Your task to perform on an android device: turn on data saver in the chrome app Image 0: 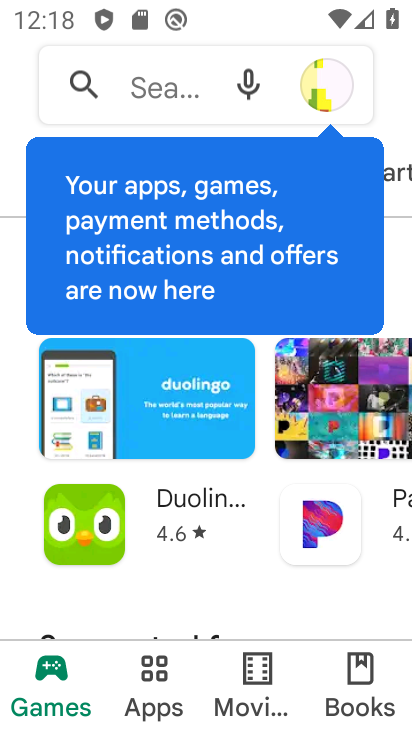
Step 0: press home button
Your task to perform on an android device: turn on data saver in the chrome app Image 1: 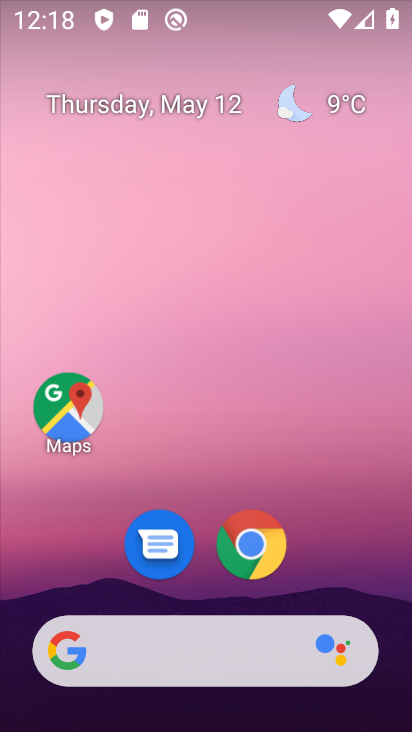
Step 1: click (251, 534)
Your task to perform on an android device: turn on data saver in the chrome app Image 2: 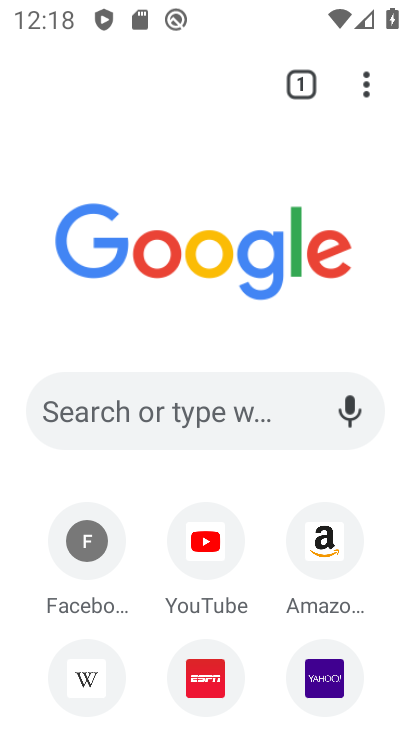
Step 2: click (366, 92)
Your task to perform on an android device: turn on data saver in the chrome app Image 3: 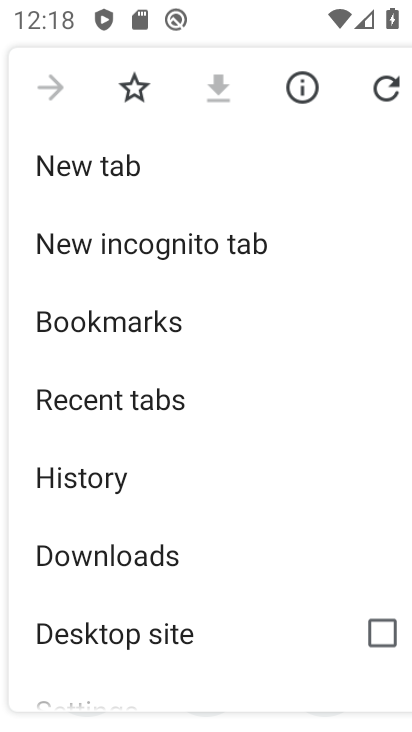
Step 3: drag from (174, 633) to (172, 227)
Your task to perform on an android device: turn on data saver in the chrome app Image 4: 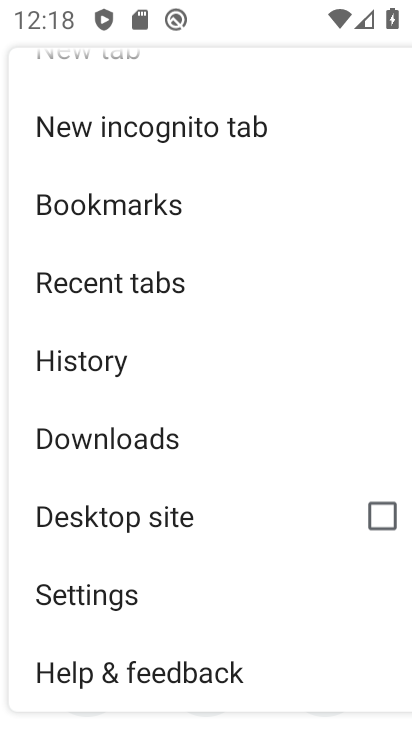
Step 4: click (92, 587)
Your task to perform on an android device: turn on data saver in the chrome app Image 5: 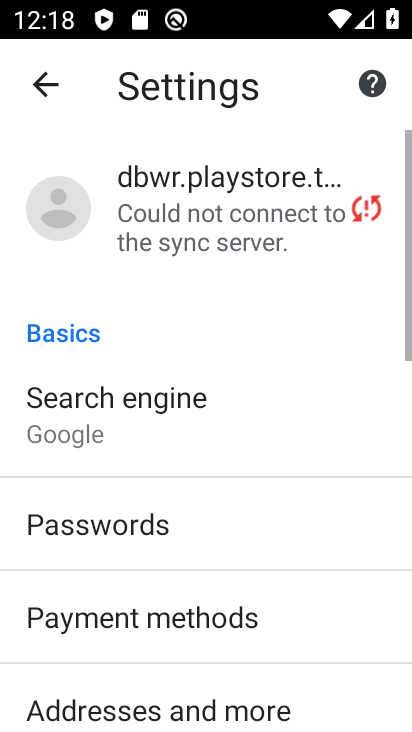
Step 5: drag from (159, 611) to (161, 281)
Your task to perform on an android device: turn on data saver in the chrome app Image 6: 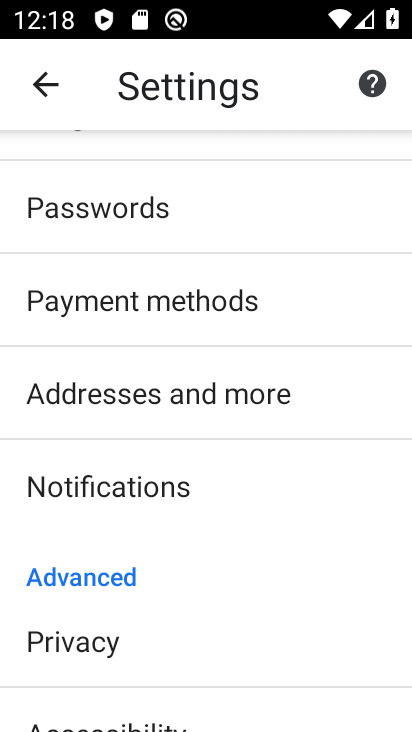
Step 6: drag from (116, 647) to (116, 235)
Your task to perform on an android device: turn on data saver in the chrome app Image 7: 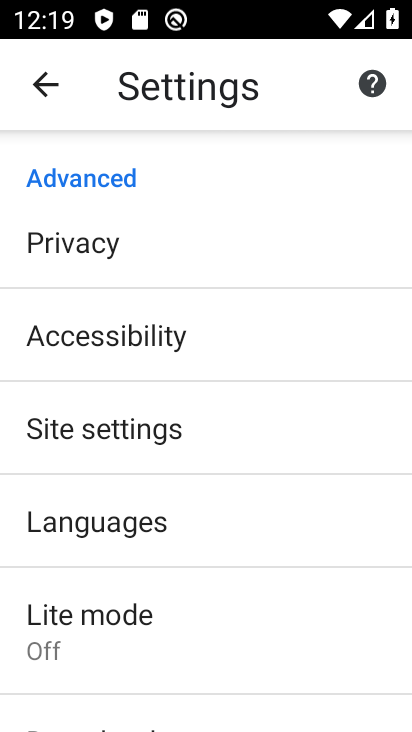
Step 7: click (101, 608)
Your task to perform on an android device: turn on data saver in the chrome app Image 8: 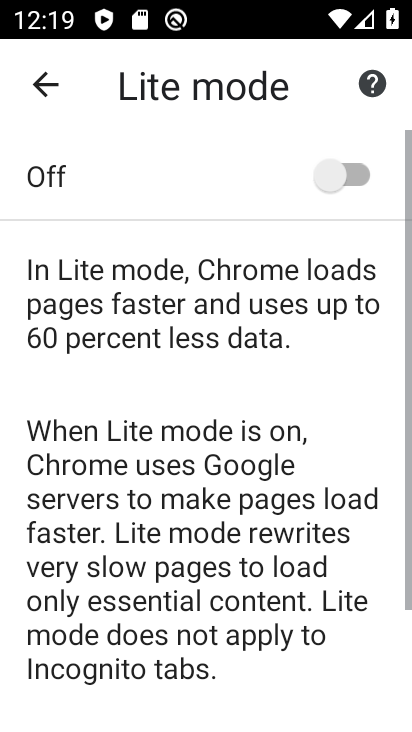
Step 8: click (359, 175)
Your task to perform on an android device: turn on data saver in the chrome app Image 9: 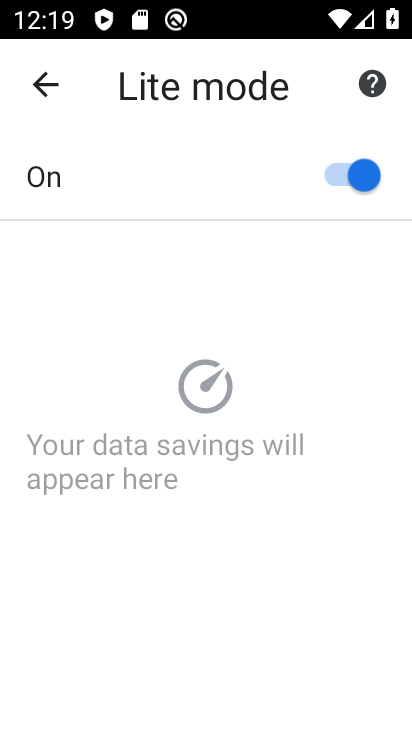
Step 9: task complete